Your task to perform on an android device: check the backup settings in the google photos Image 0: 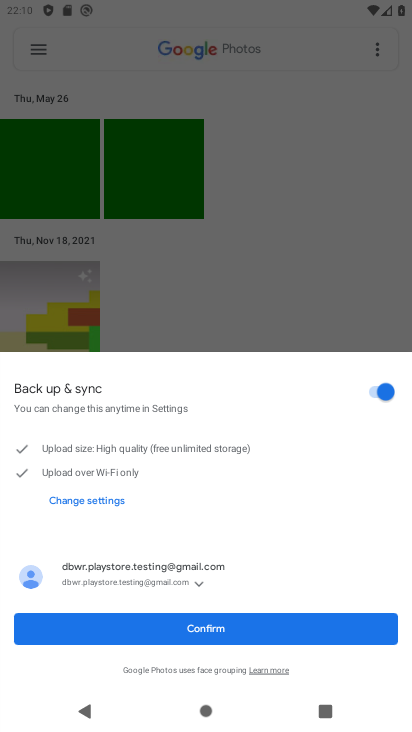
Step 0: press home button
Your task to perform on an android device: check the backup settings in the google photos Image 1: 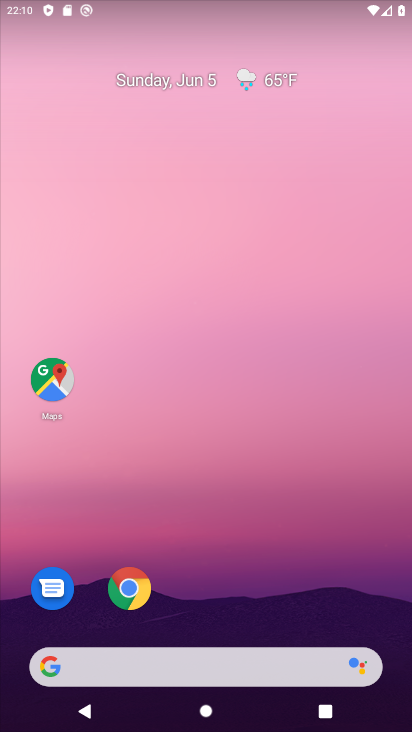
Step 1: drag from (220, 562) to (327, 37)
Your task to perform on an android device: check the backup settings in the google photos Image 2: 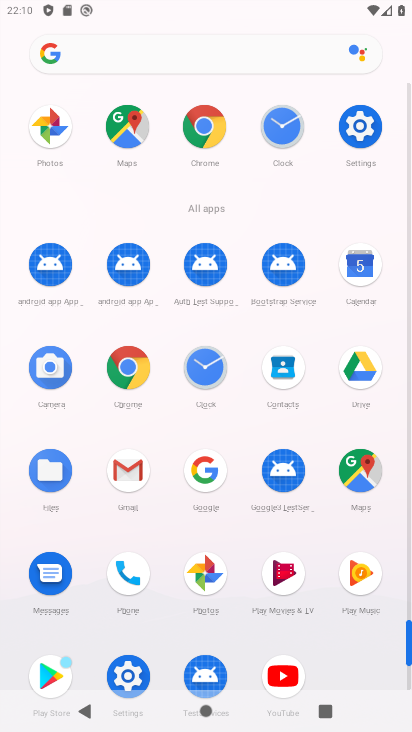
Step 2: click (202, 598)
Your task to perform on an android device: check the backup settings in the google photos Image 3: 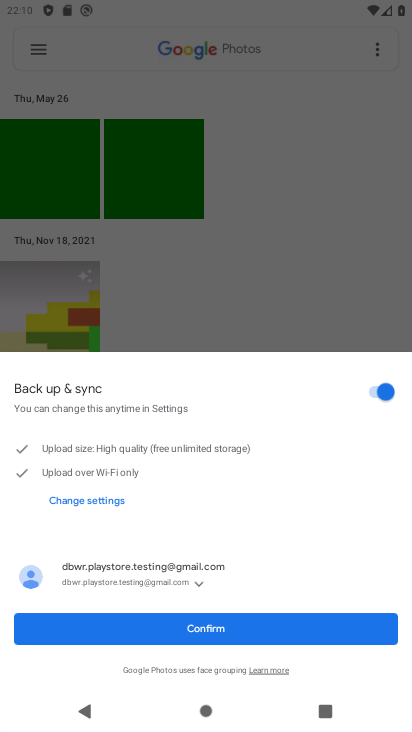
Step 3: click (211, 634)
Your task to perform on an android device: check the backup settings in the google photos Image 4: 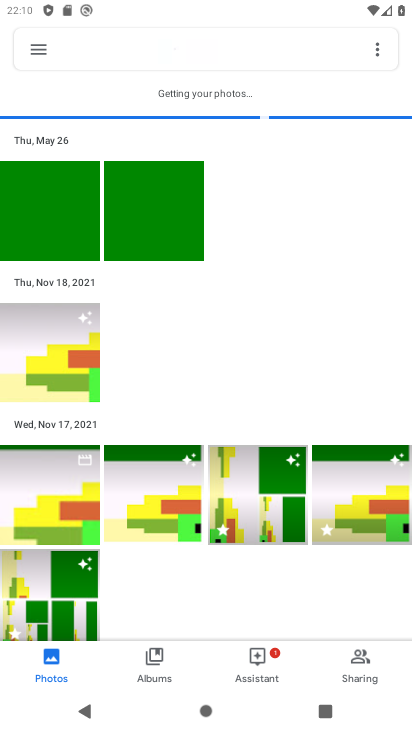
Step 4: click (48, 48)
Your task to perform on an android device: check the backup settings in the google photos Image 5: 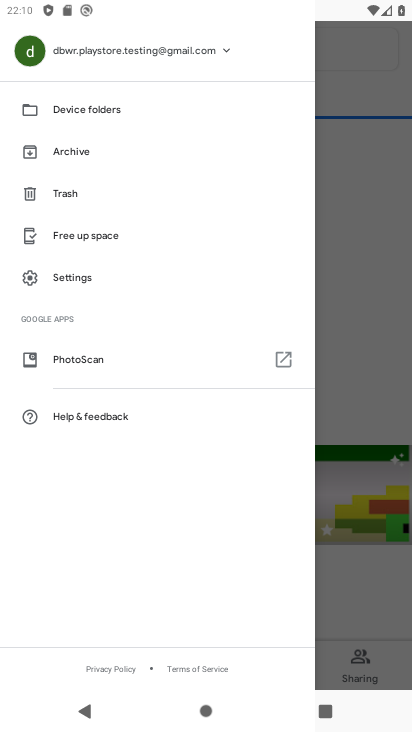
Step 5: click (140, 269)
Your task to perform on an android device: check the backup settings in the google photos Image 6: 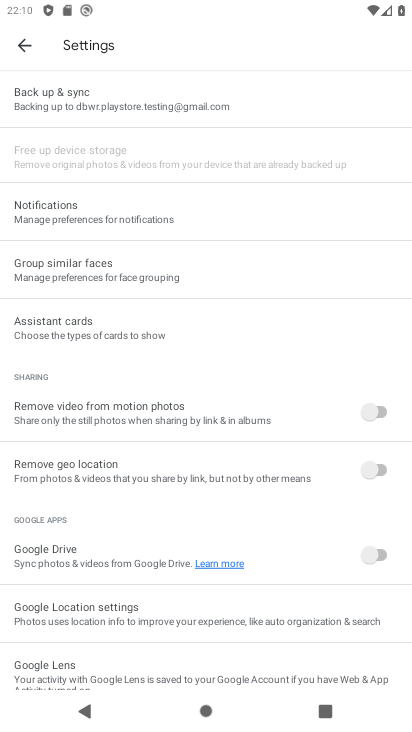
Step 6: click (232, 114)
Your task to perform on an android device: check the backup settings in the google photos Image 7: 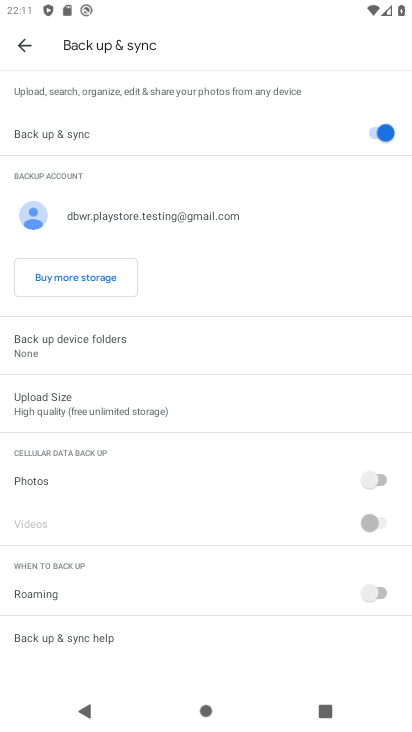
Step 7: task complete